Your task to perform on an android device: Open battery settings Image 0: 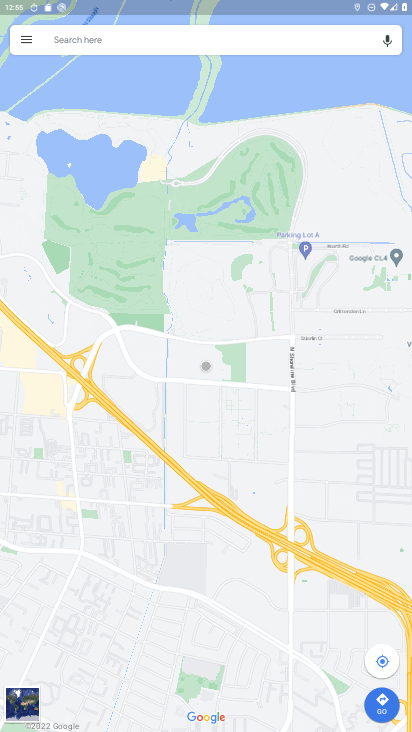
Step 0: press home button
Your task to perform on an android device: Open battery settings Image 1: 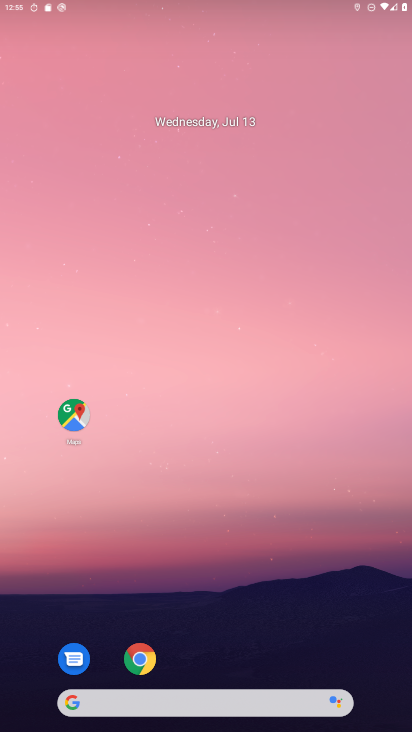
Step 1: drag from (224, 702) to (329, 13)
Your task to perform on an android device: Open battery settings Image 2: 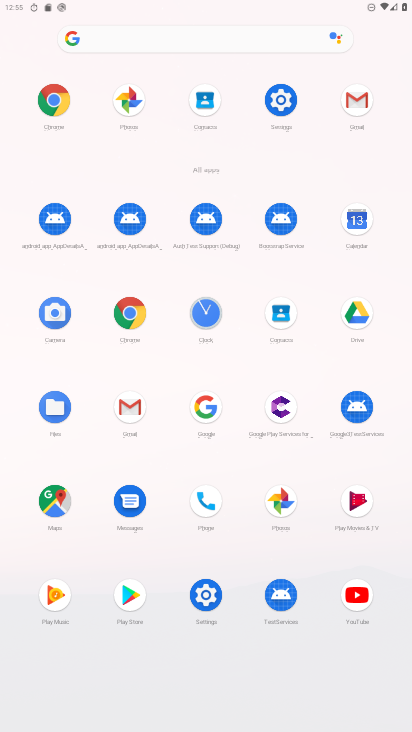
Step 2: click (290, 101)
Your task to perform on an android device: Open battery settings Image 3: 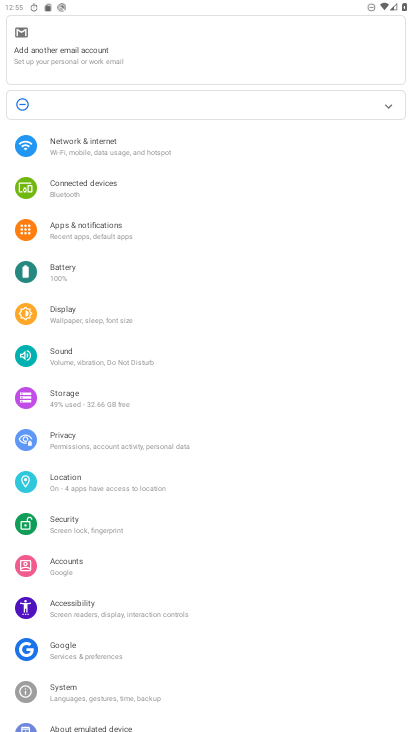
Step 3: click (84, 270)
Your task to perform on an android device: Open battery settings Image 4: 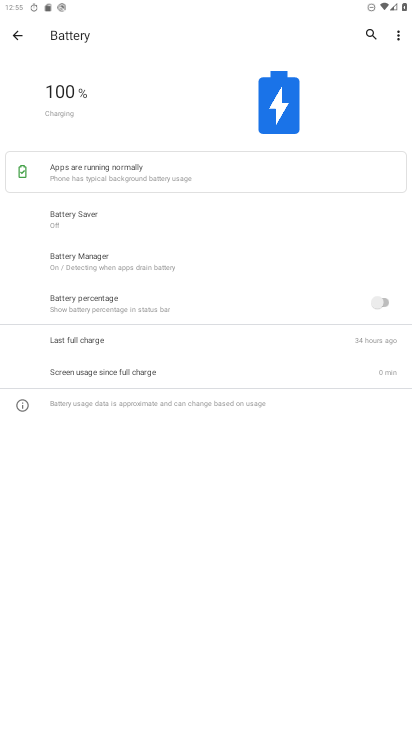
Step 4: task complete